Your task to perform on an android device: What is the news today? Image 0: 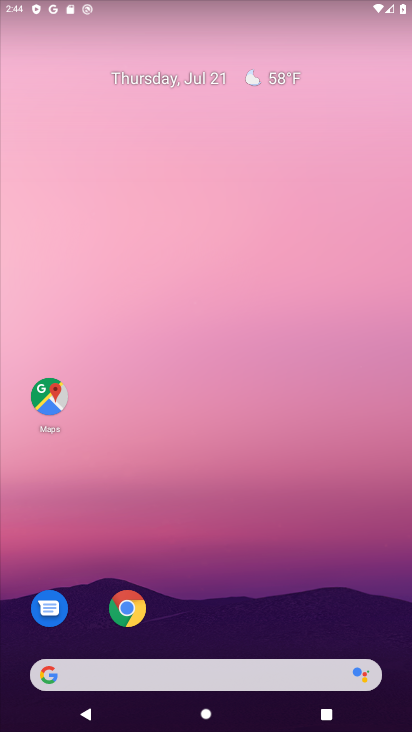
Step 0: press home button
Your task to perform on an android device: What is the news today? Image 1: 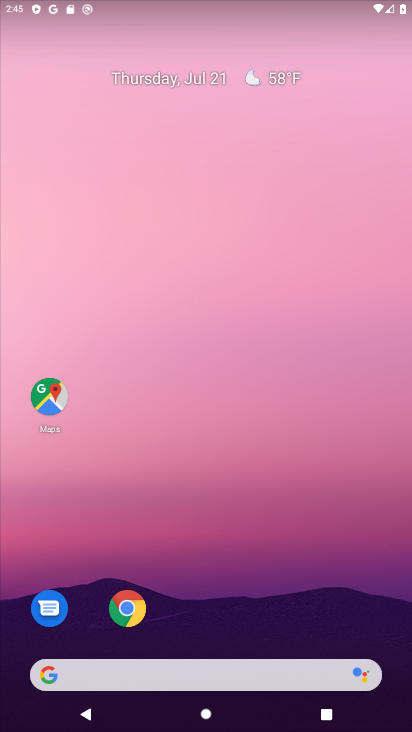
Step 1: task complete